Your task to perform on an android device: toggle improve location accuracy Image 0: 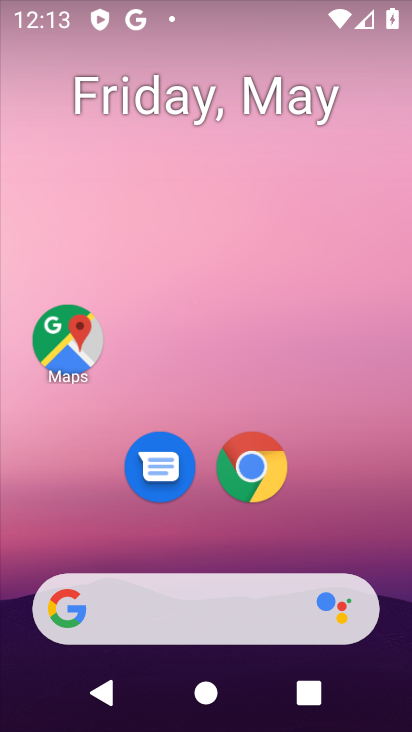
Step 0: drag from (343, 525) to (311, 23)
Your task to perform on an android device: toggle improve location accuracy Image 1: 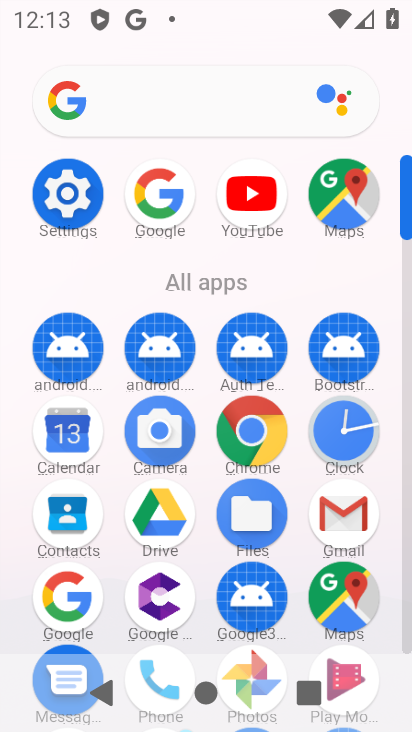
Step 1: click (66, 194)
Your task to perform on an android device: toggle improve location accuracy Image 2: 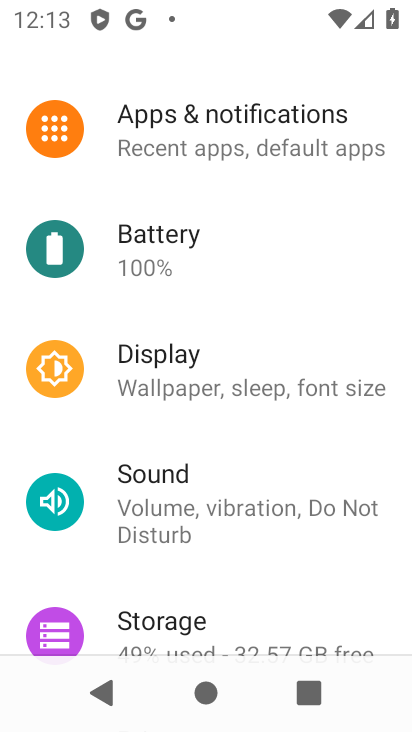
Step 2: drag from (224, 442) to (231, 291)
Your task to perform on an android device: toggle improve location accuracy Image 3: 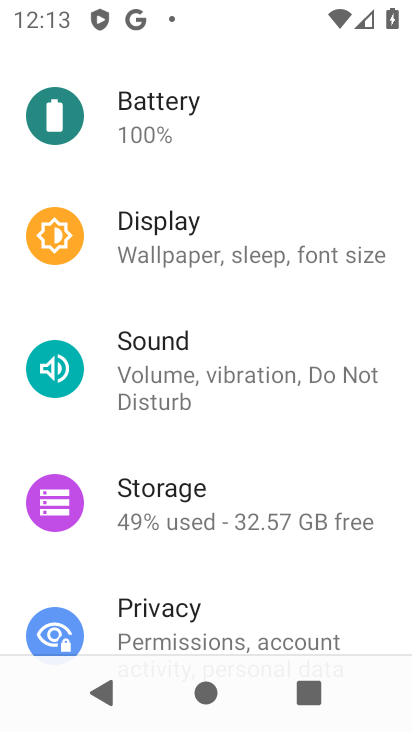
Step 3: drag from (208, 441) to (251, 271)
Your task to perform on an android device: toggle improve location accuracy Image 4: 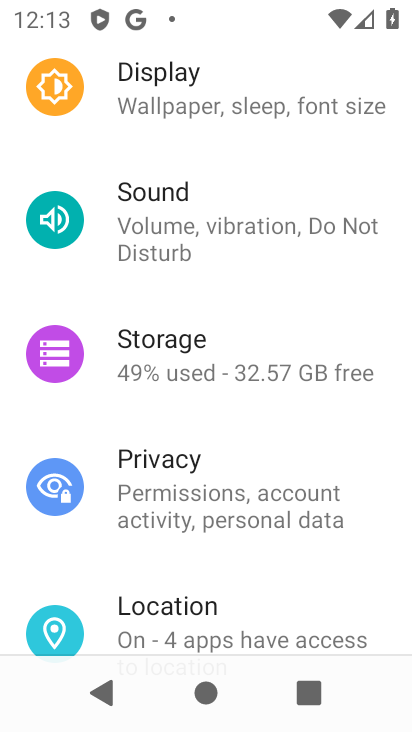
Step 4: drag from (194, 437) to (259, 235)
Your task to perform on an android device: toggle improve location accuracy Image 5: 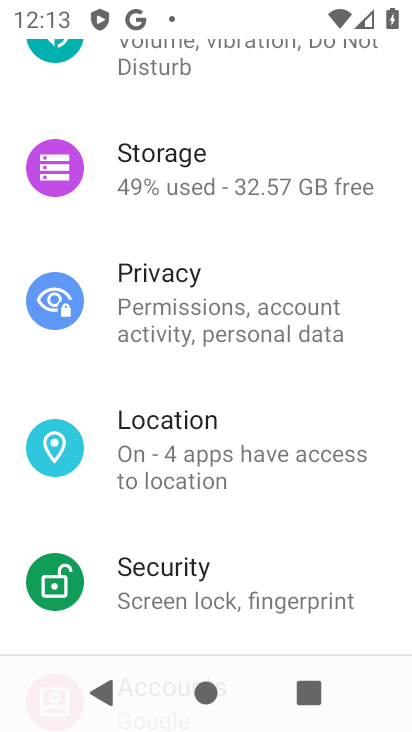
Step 5: click (167, 423)
Your task to perform on an android device: toggle improve location accuracy Image 6: 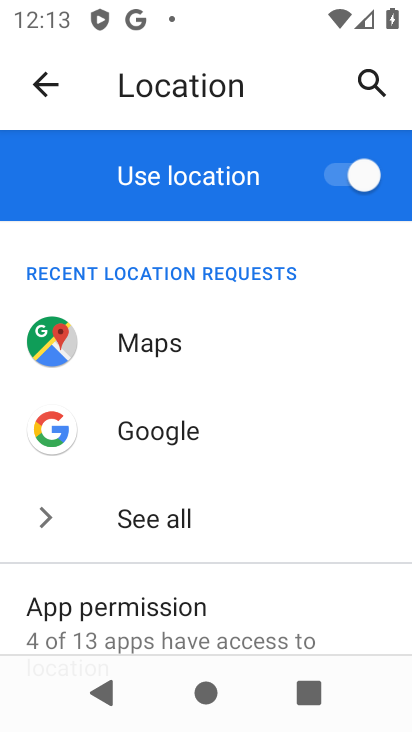
Step 6: drag from (242, 536) to (265, 263)
Your task to perform on an android device: toggle improve location accuracy Image 7: 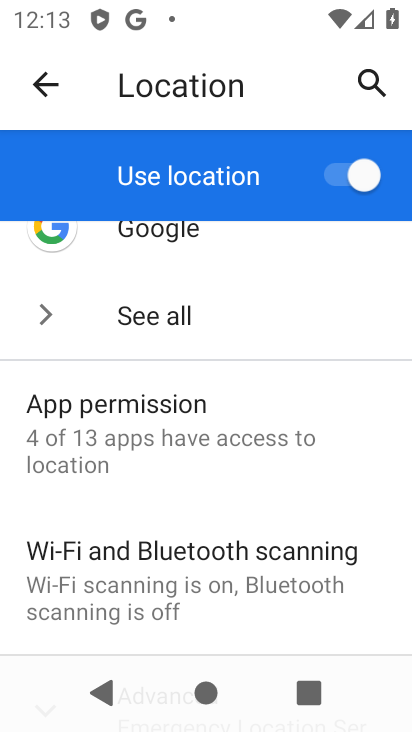
Step 7: drag from (230, 498) to (313, 329)
Your task to perform on an android device: toggle improve location accuracy Image 8: 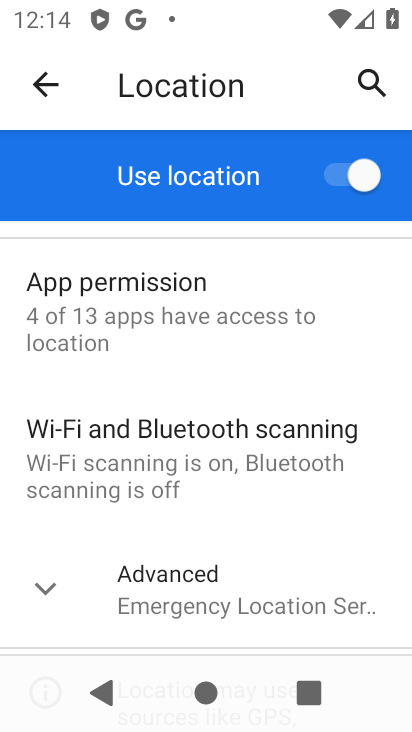
Step 8: drag from (245, 521) to (293, 403)
Your task to perform on an android device: toggle improve location accuracy Image 9: 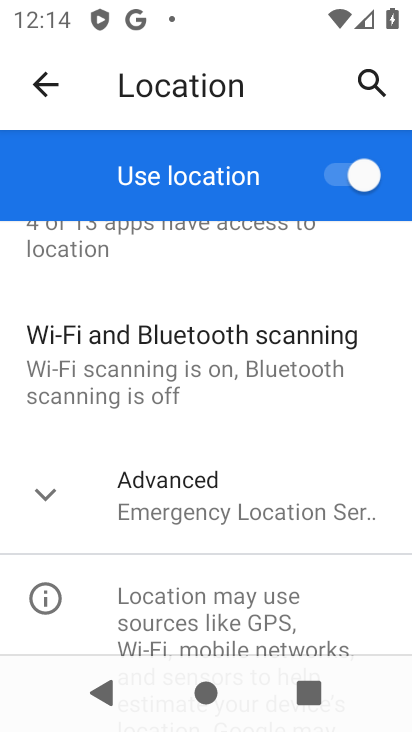
Step 9: click (217, 510)
Your task to perform on an android device: toggle improve location accuracy Image 10: 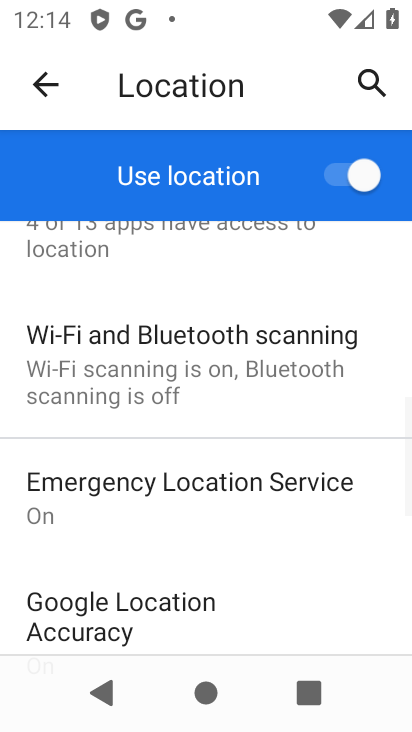
Step 10: drag from (174, 556) to (299, 386)
Your task to perform on an android device: toggle improve location accuracy Image 11: 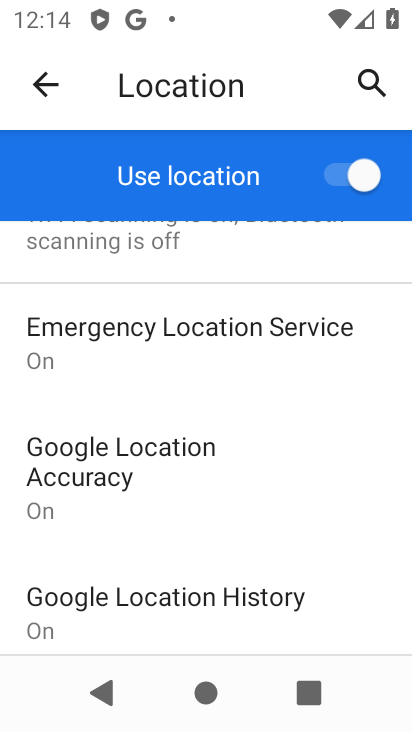
Step 11: click (145, 453)
Your task to perform on an android device: toggle improve location accuracy Image 12: 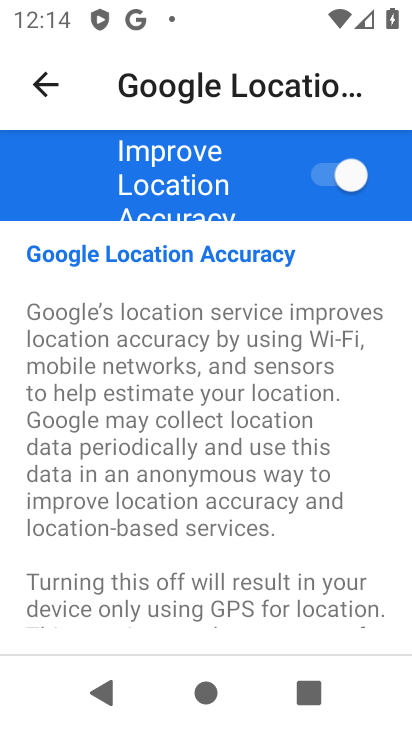
Step 12: click (349, 179)
Your task to perform on an android device: toggle improve location accuracy Image 13: 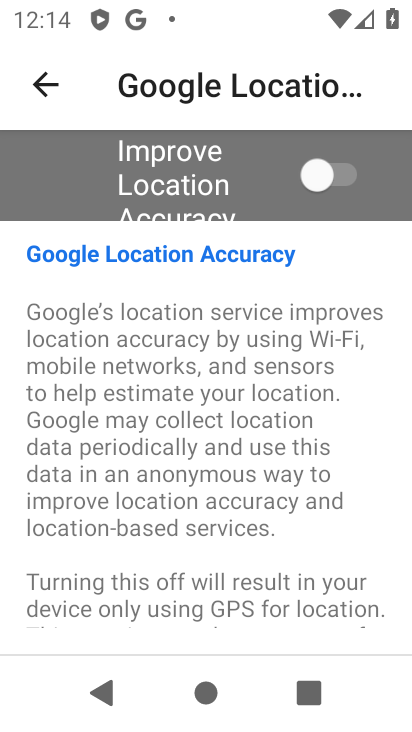
Step 13: task complete